Your task to perform on an android device: open app "Pinterest" (install if not already installed) and go to login screen Image 0: 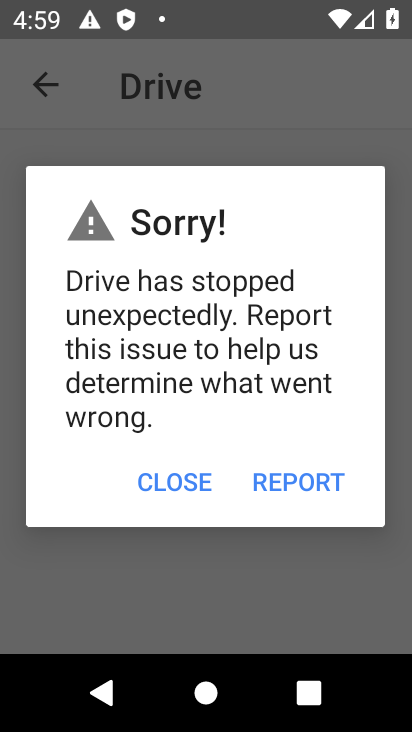
Step 0: press home button
Your task to perform on an android device: open app "Pinterest" (install if not already installed) and go to login screen Image 1: 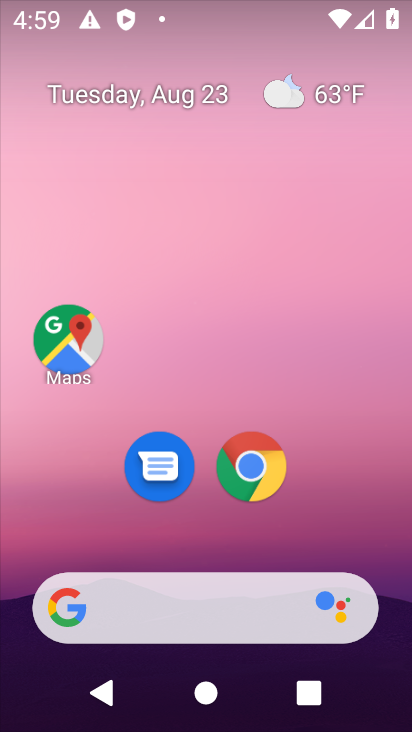
Step 1: drag from (207, 543) to (172, 6)
Your task to perform on an android device: open app "Pinterest" (install if not already installed) and go to login screen Image 2: 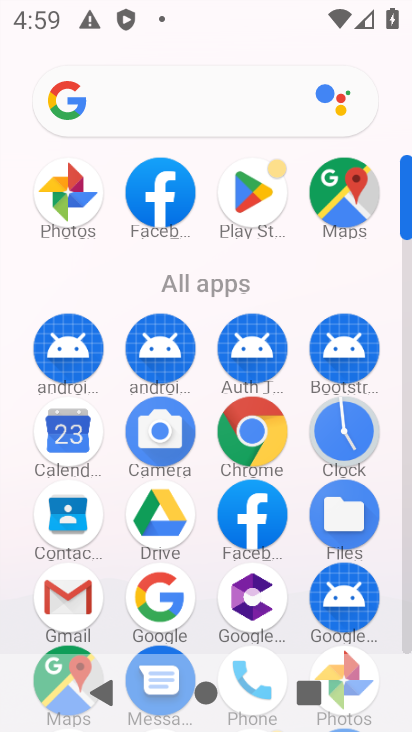
Step 2: click (252, 200)
Your task to perform on an android device: open app "Pinterest" (install if not already installed) and go to login screen Image 3: 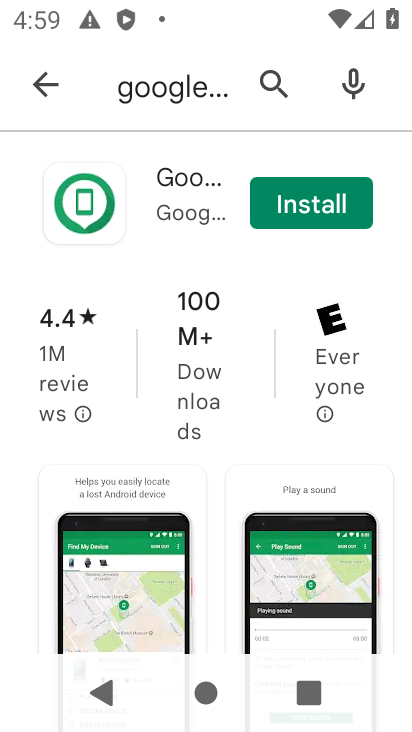
Step 3: click (278, 77)
Your task to perform on an android device: open app "Pinterest" (install if not already installed) and go to login screen Image 4: 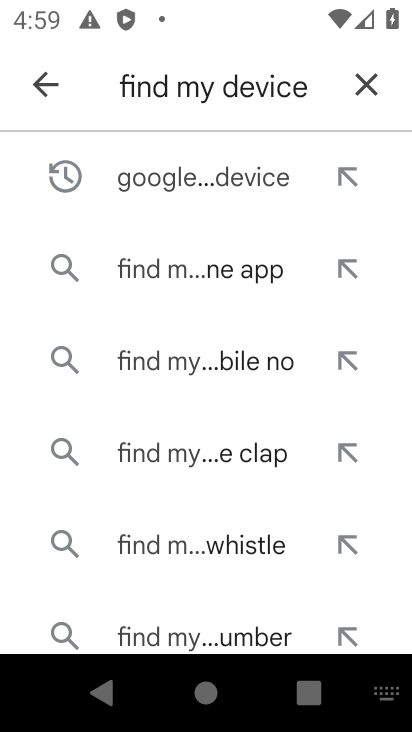
Step 4: click (369, 90)
Your task to perform on an android device: open app "Pinterest" (install if not already installed) and go to login screen Image 5: 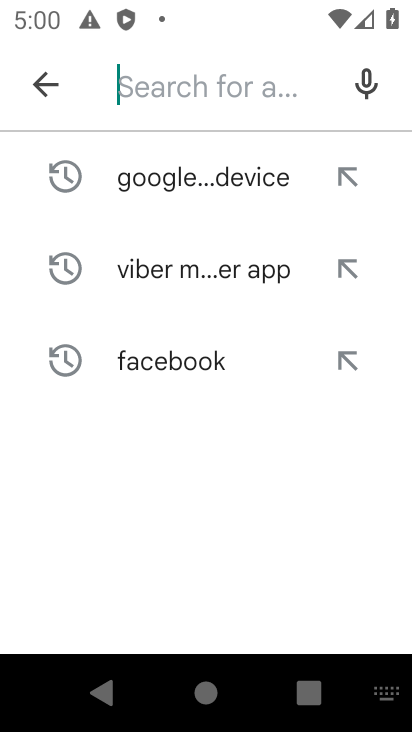
Step 5: type "pinterest"
Your task to perform on an android device: open app "Pinterest" (install if not already installed) and go to login screen Image 6: 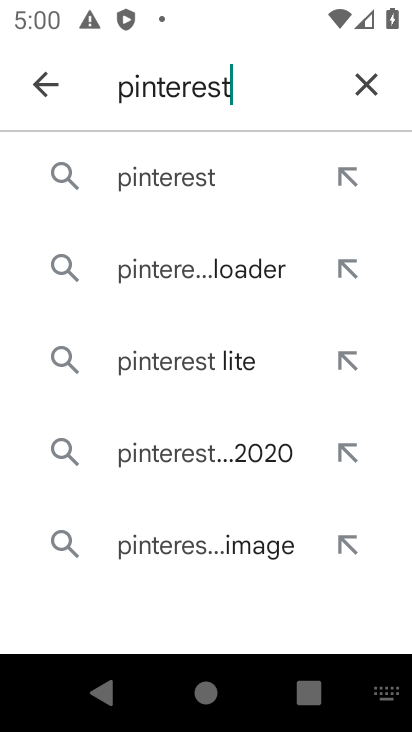
Step 6: click (189, 180)
Your task to perform on an android device: open app "Pinterest" (install if not already installed) and go to login screen Image 7: 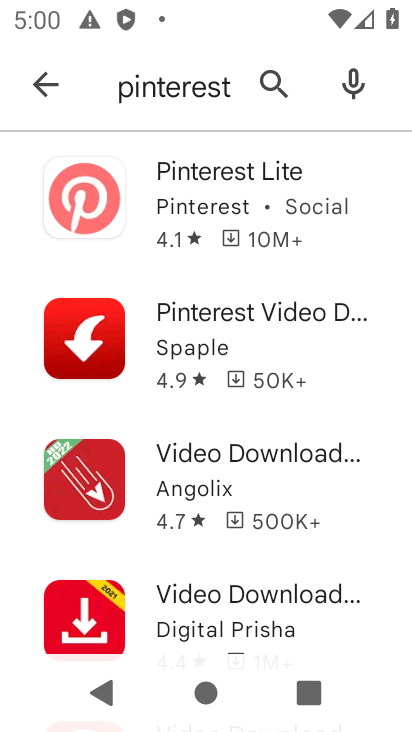
Step 7: click (229, 223)
Your task to perform on an android device: open app "Pinterest" (install if not already installed) and go to login screen Image 8: 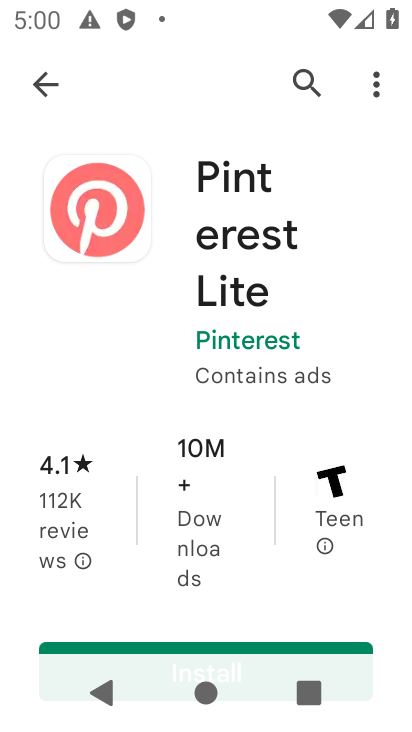
Step 8: task complete